Your task to perform on an android device: Go to location settings Image 0: 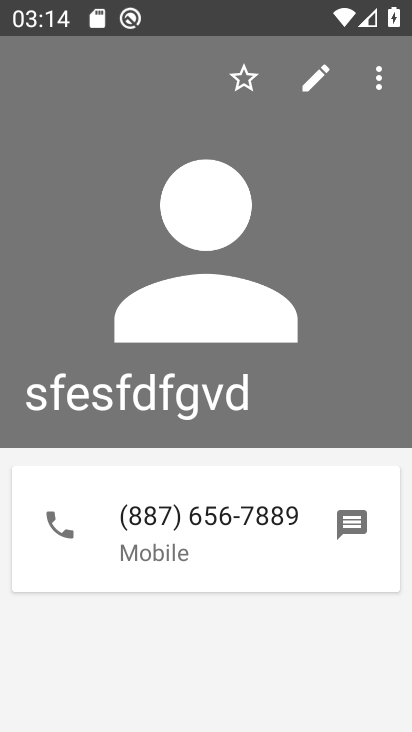
Step 0: press home button
Your task to perform on an android device: Go to location settings Image 1: 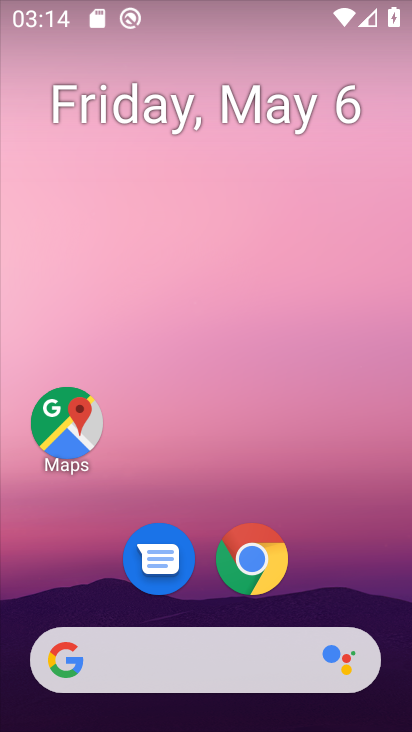
Step 1: drag from (351, 609) to (275, 42)
Your task to perform on an android device: Go to location settings Image 2: 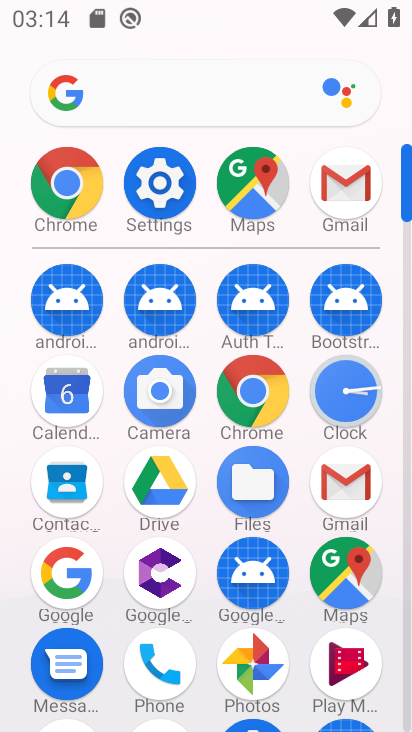
Step 2: click (158, 173)
Your task to perform on an android device: Go to location settings Image 3: 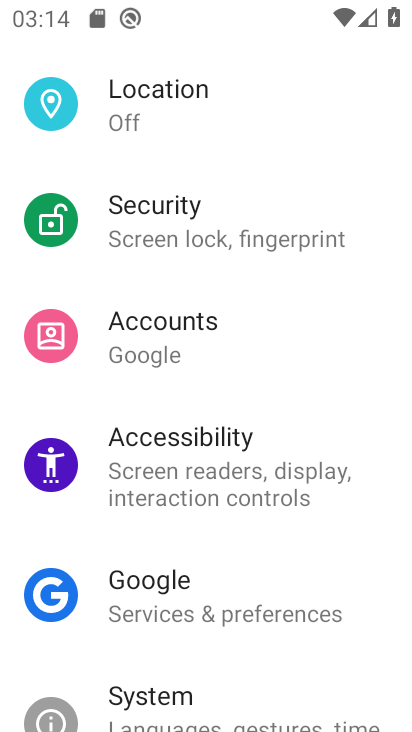
Step 3: drag from (250, 201) to (209, 491)
Your task to perform on an android device: Go to location settings Image 4: 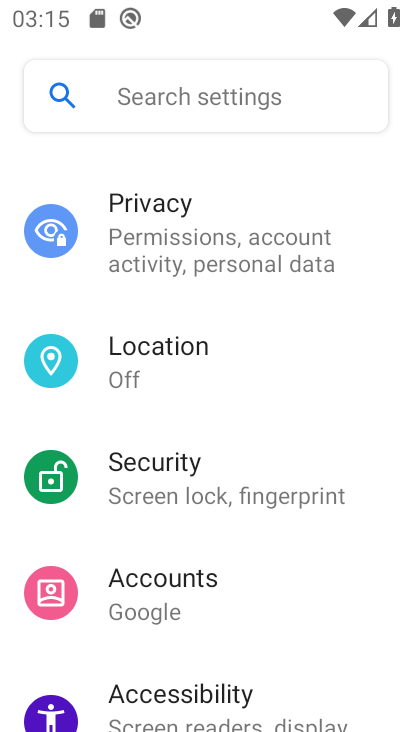
Step 4: click (182, 380)
Your task to perform on an android device: Go to location settings Image 5: 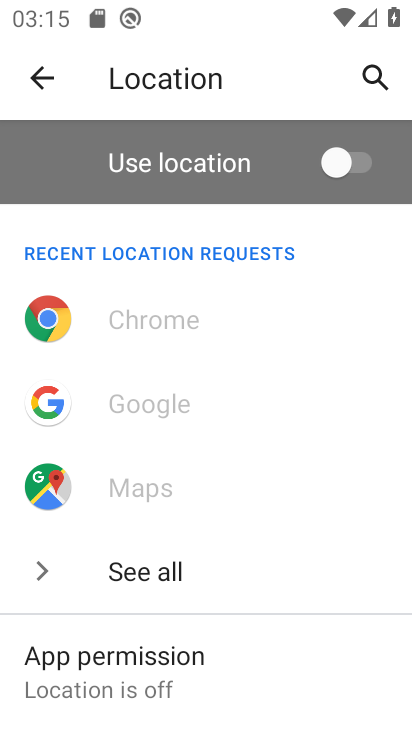
Step 5: task complete